Your task to perform on an android device: Set an alarm for 9am Image 0: 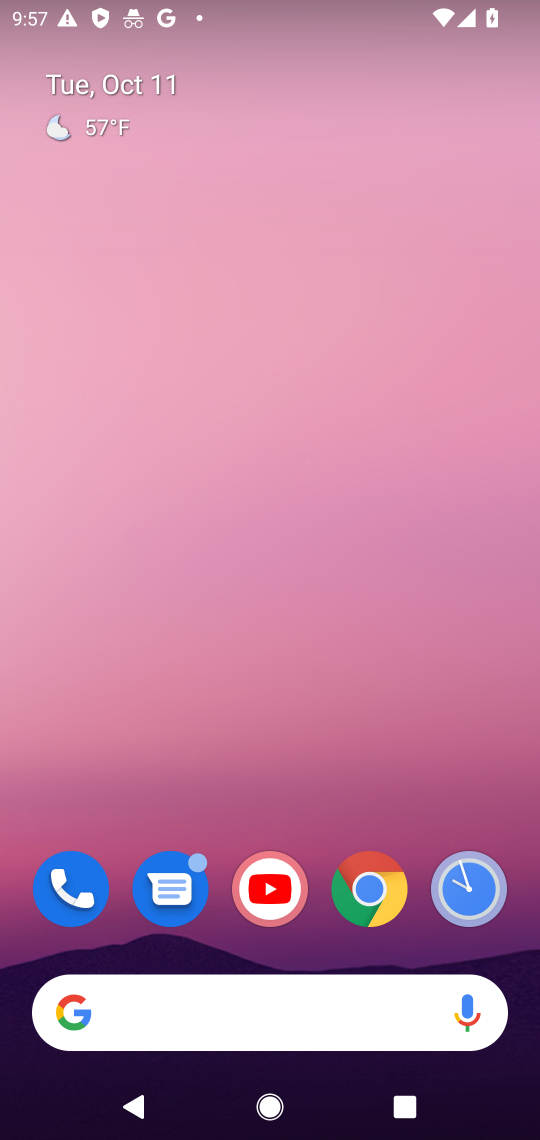
Step 0: click (462, 887)
Your task to perform on an android device: Set an alarm for 9am Image 1: 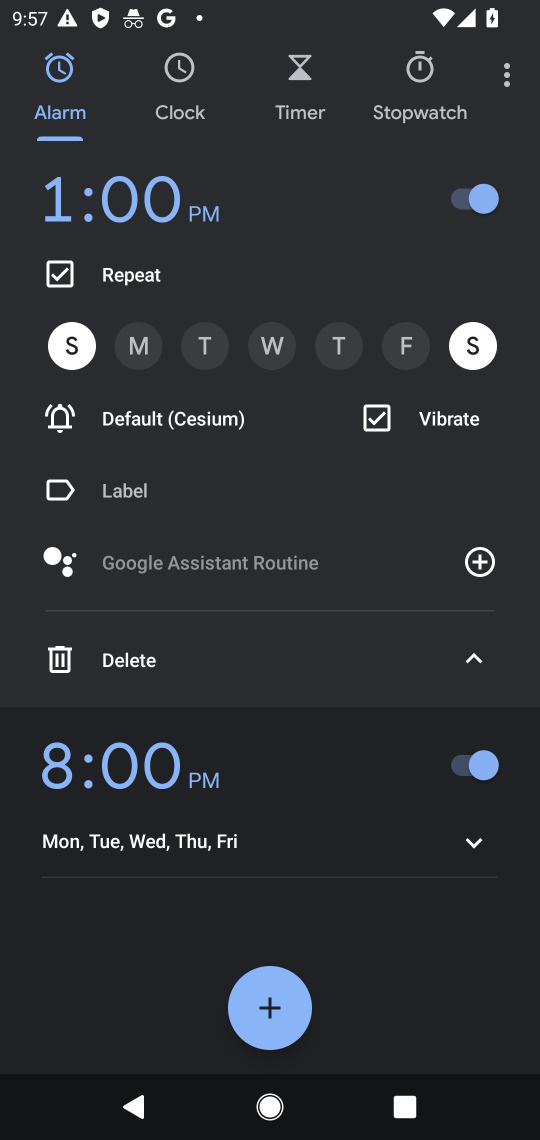
Step 1: click (125, 756)
Your task to perform on an android device: Set an alarm for 9am Image 2: 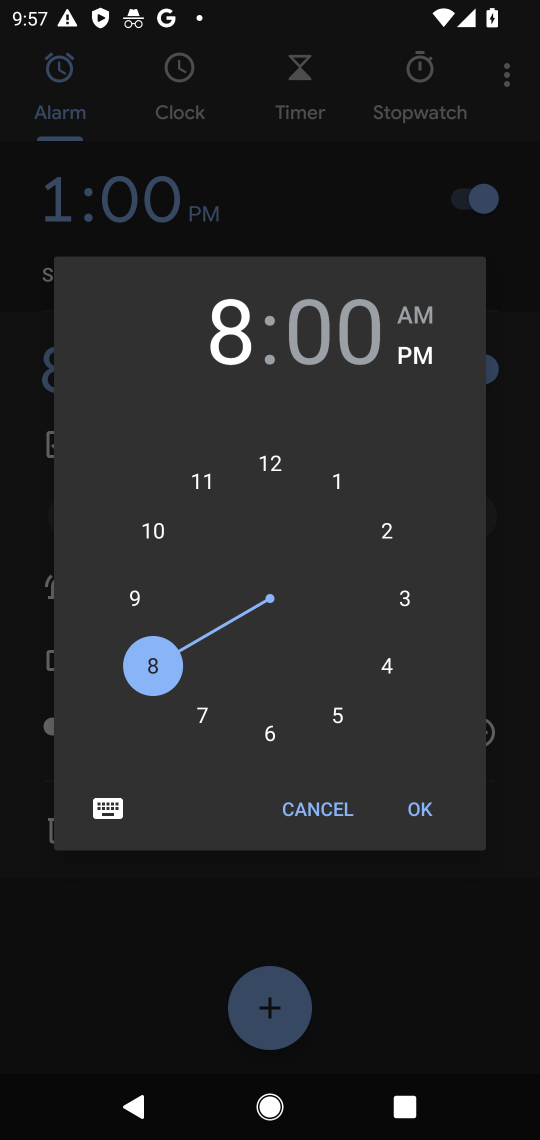
Step 2: click (132, 614)
Your task to perform on an android device: Set an alarm for 9am Image 3: 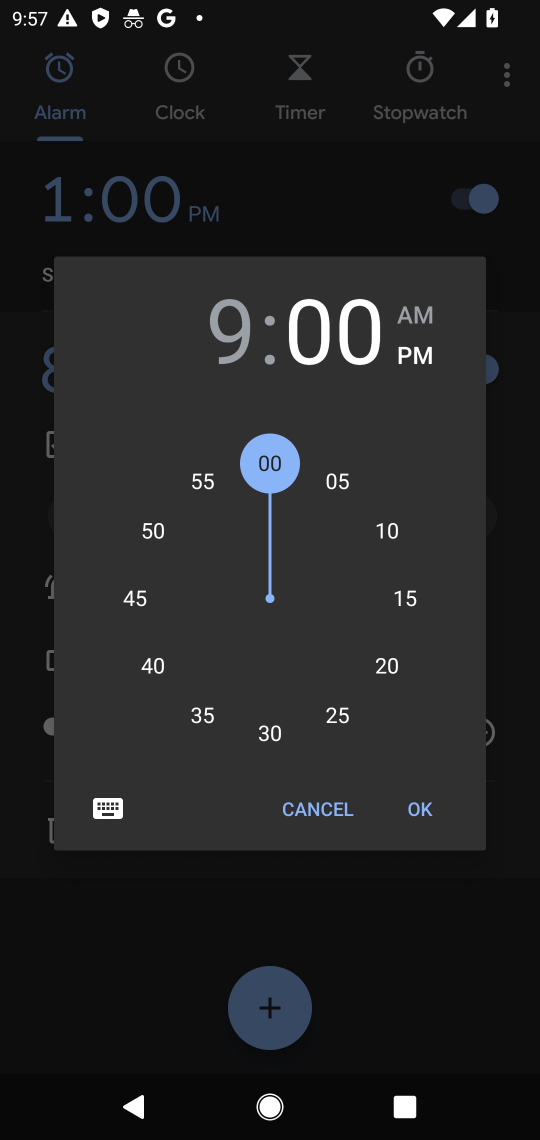
Step 3: click (412, 314)
Your task to perform on an android device: Set an alarm for 9am Image 4: 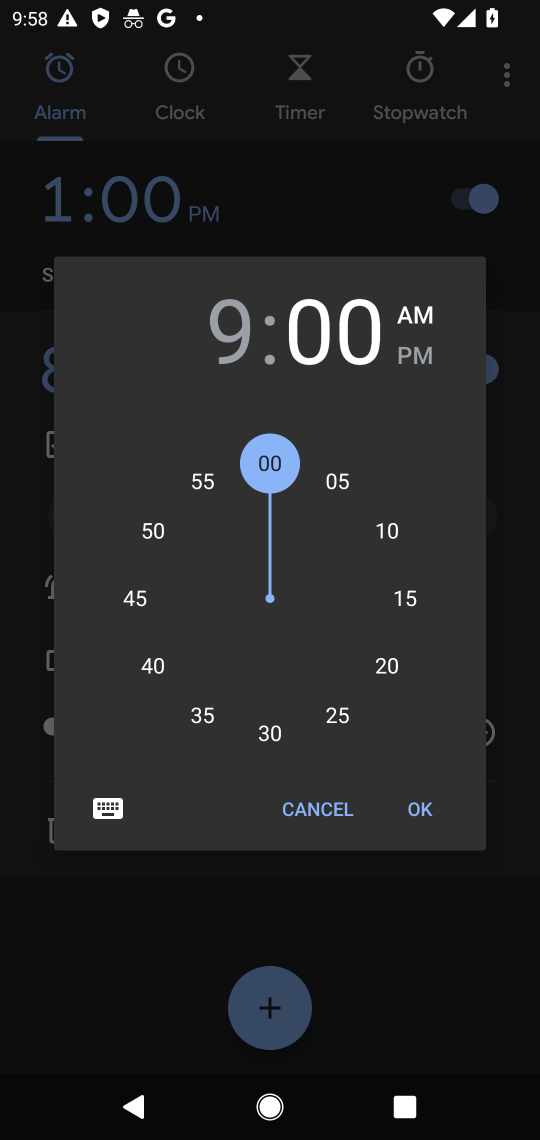
Step 4: task complete